Your task to perform on an android device: open a bookmark in the chrome app Image 0: 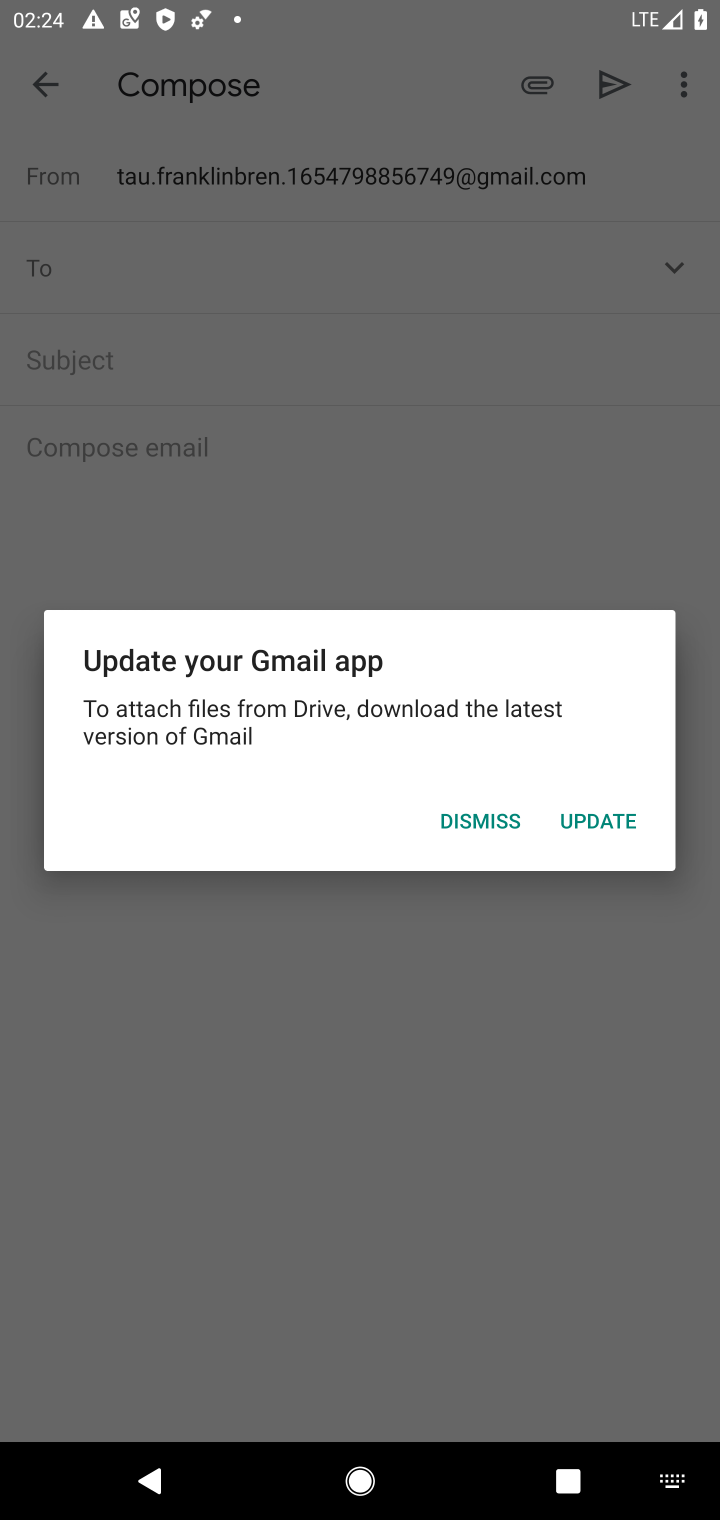
Step 0: press home button
Your task to perform on an android device: open a bookmark in the chrome app Image 1: 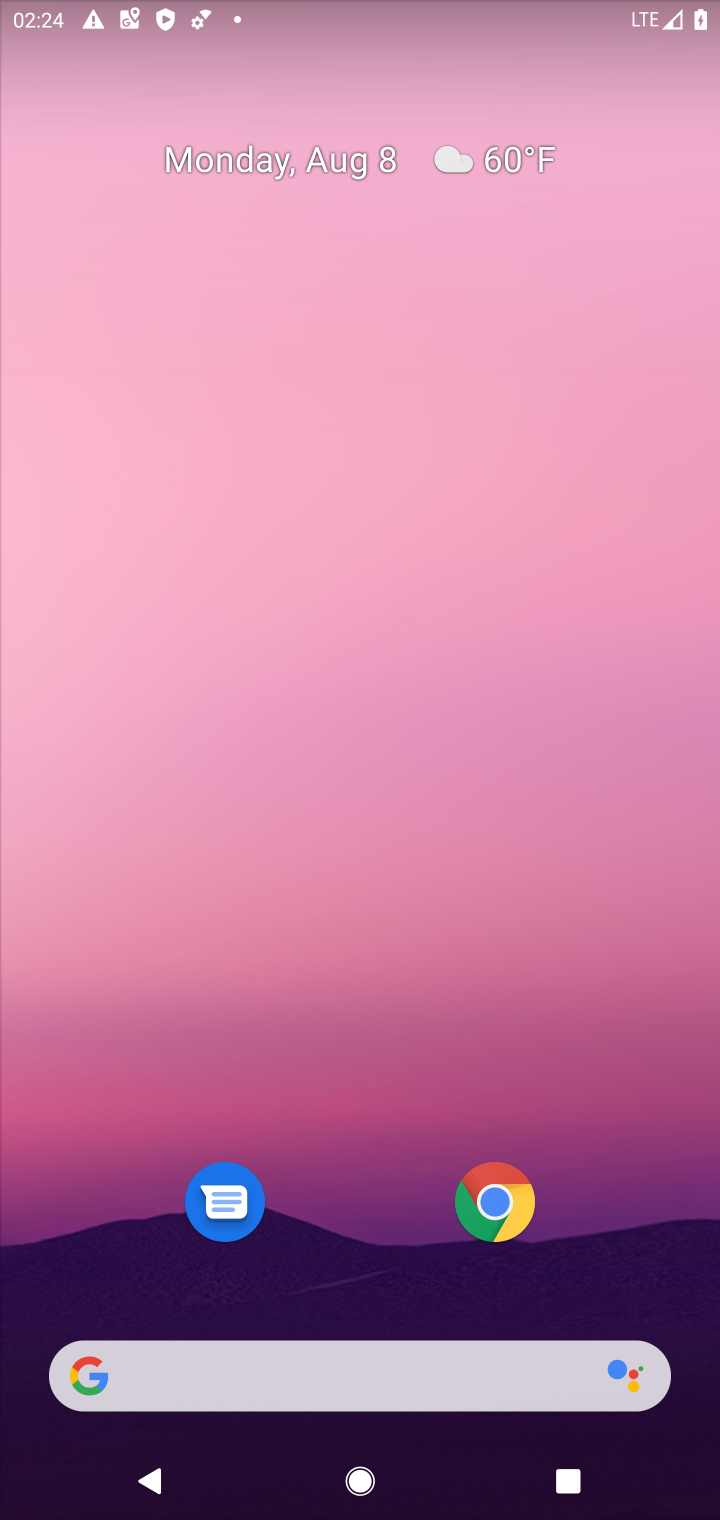
Step 1: click (493, 1210)
Your task to perform on an android device: open a bookmark in the chrome app Image 2: 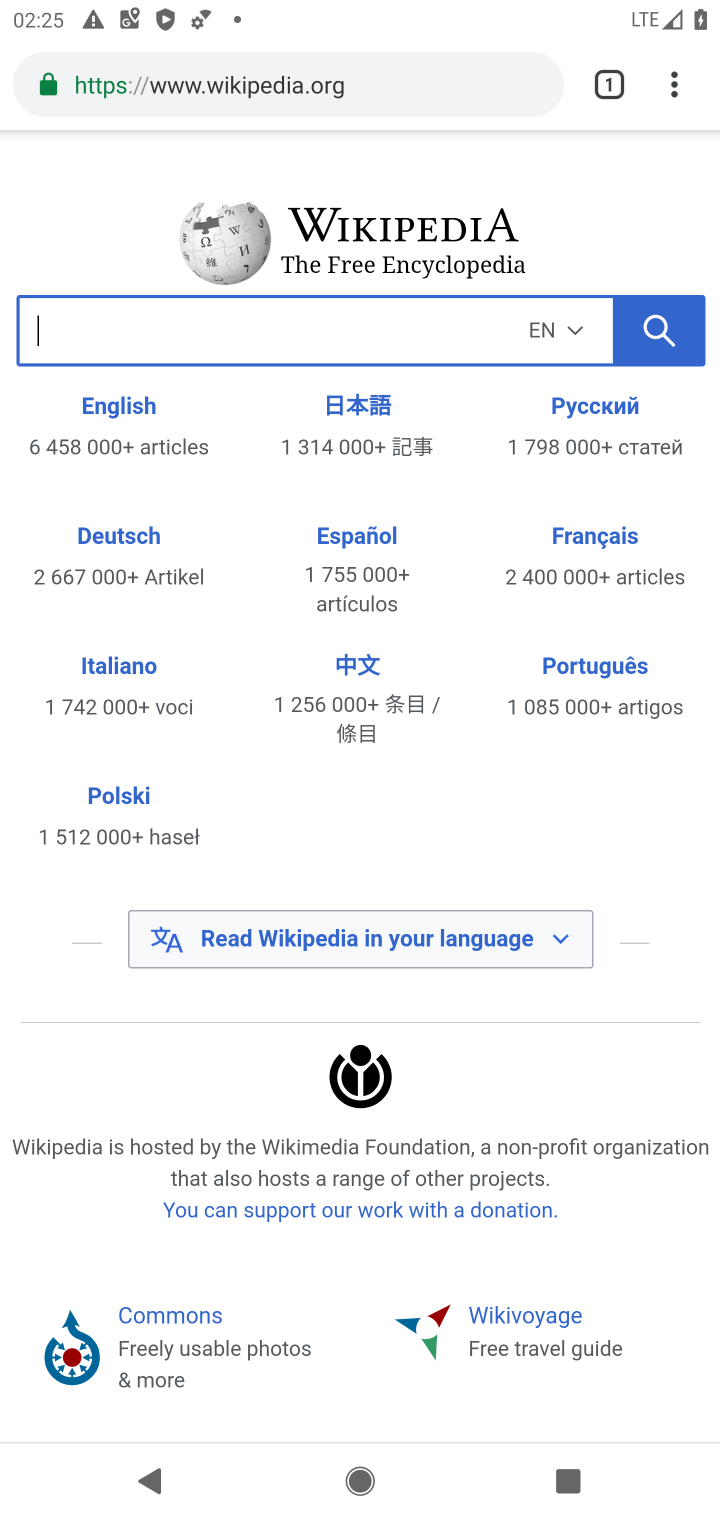
Step 2: click (671, 84)
Your task to perform on an android device: open a bookmark in the chrome app Image 3: 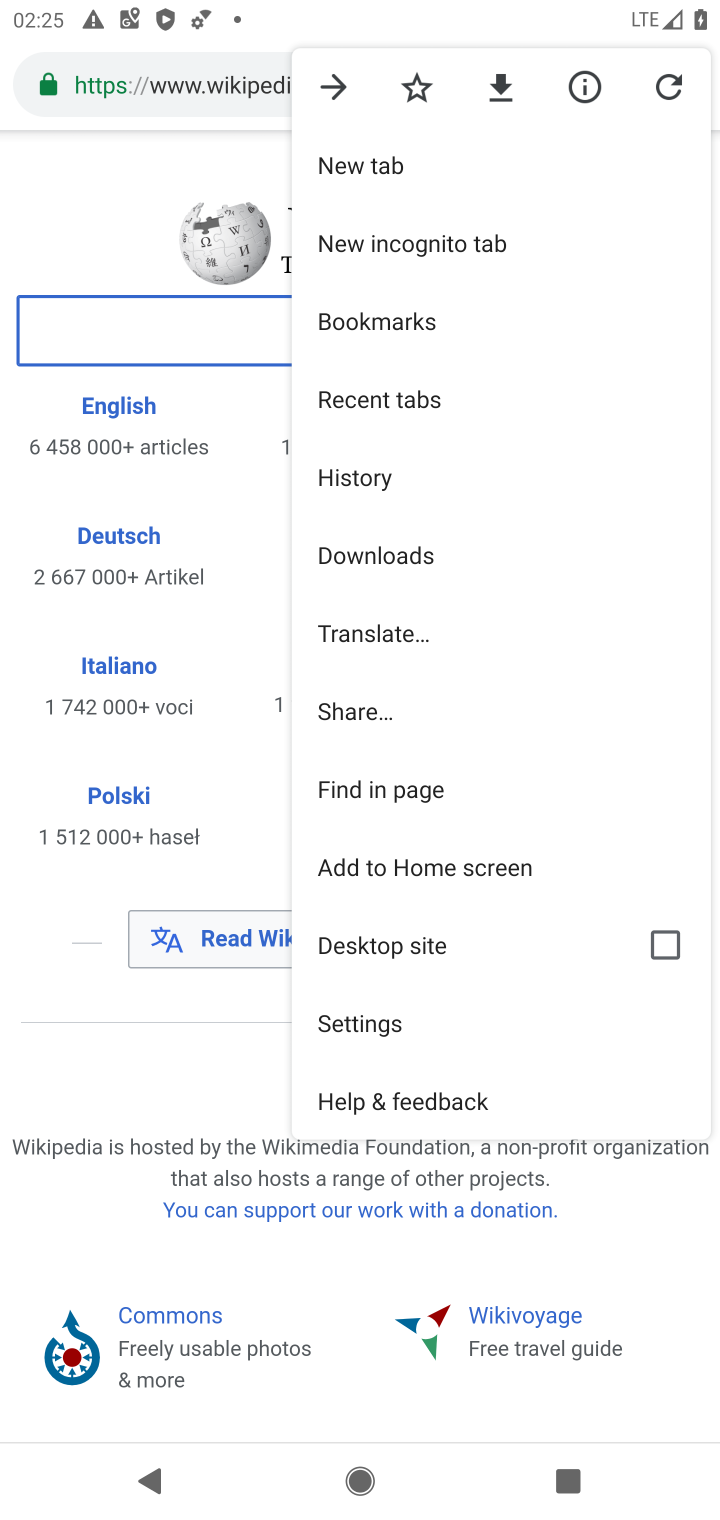
Step 3: click (409, 320)
Your task to perform on an android device: open a bookmark in the chrome app Image 4: 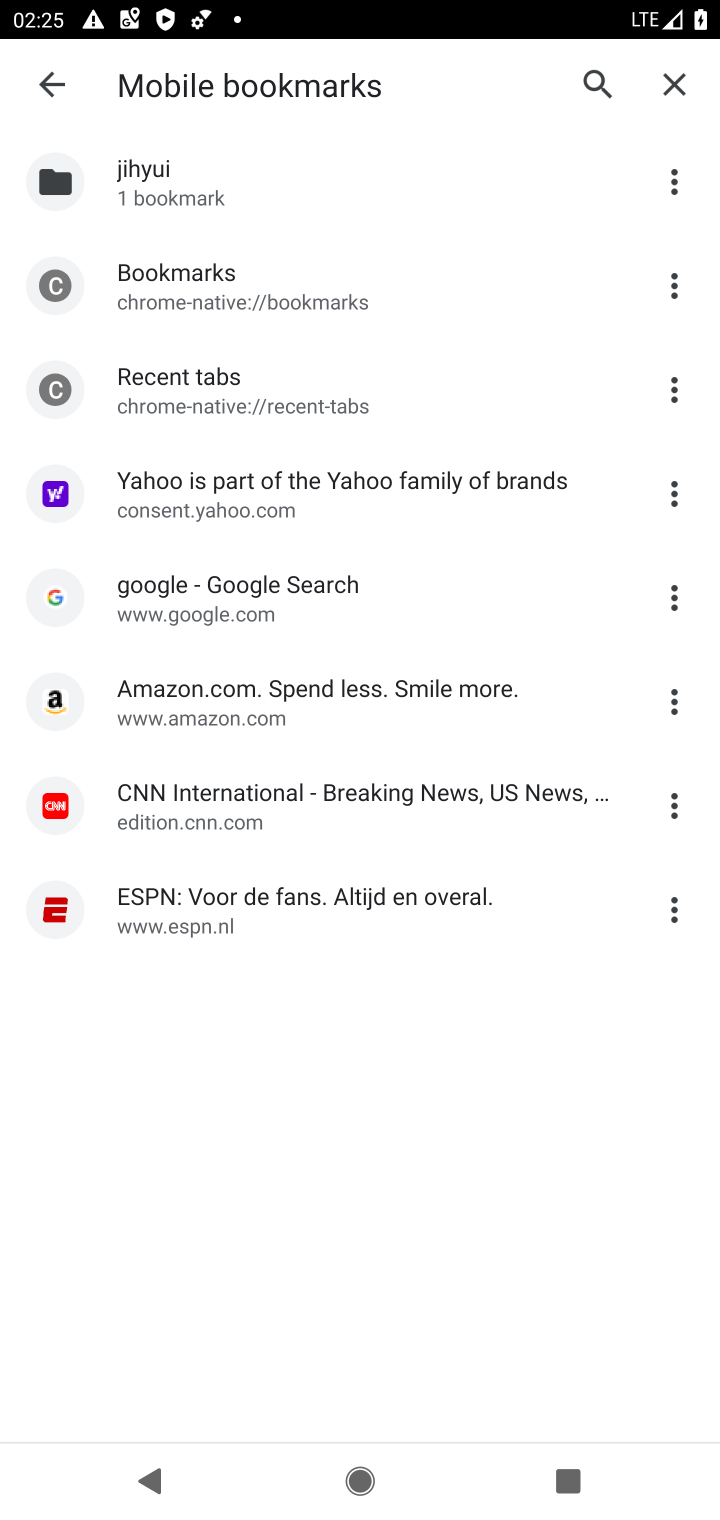
Step 4: task complete